Your task to perform on an android device: turn on priority inbox in the gmail app Image 0: 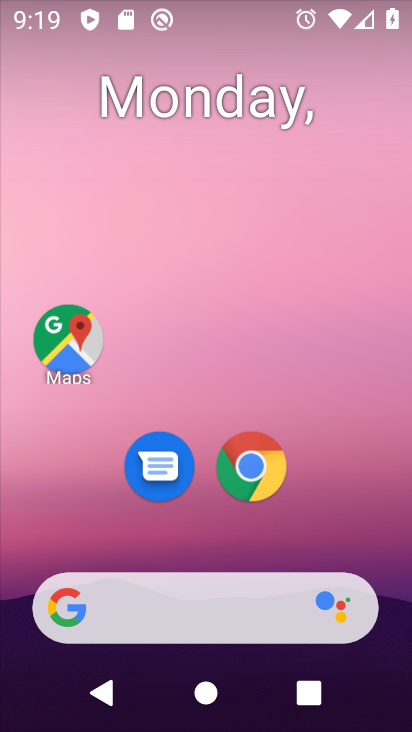
Step 0: drag from (275, 701) to (230, 196)
Your task to perform on an android device: turn on priority inbox in the gmail app Image 1: 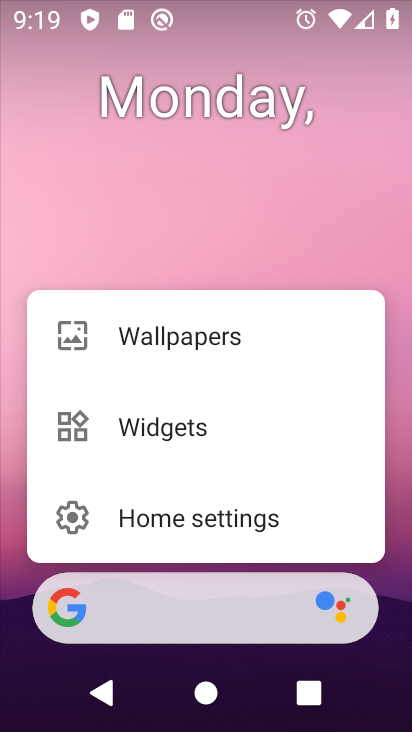
Step 1: click (273, 196)
Your task to perform on an android device: turn on priority inbox in the gmail app Image 2: 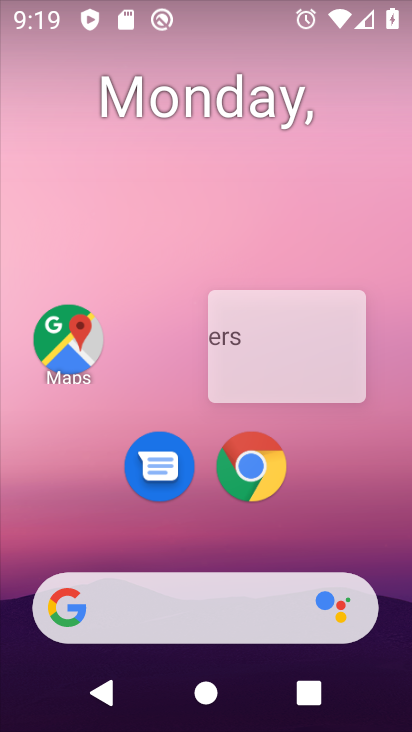
Step 2: drag from (273, 196) to (274, 234)
Your task to perform on an android device: turn on priority inbox in the gmail app Image 3: 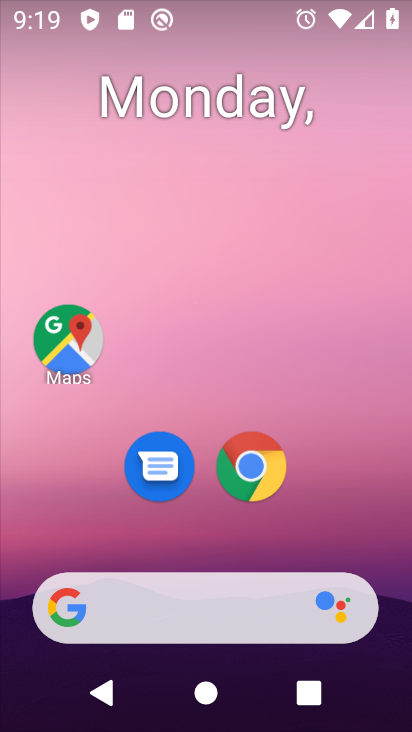
Step 3: drag from (345, 535) to (94, 124)
Your task to perform on an android device: turn on priority inbox in the gmail app Image 4: 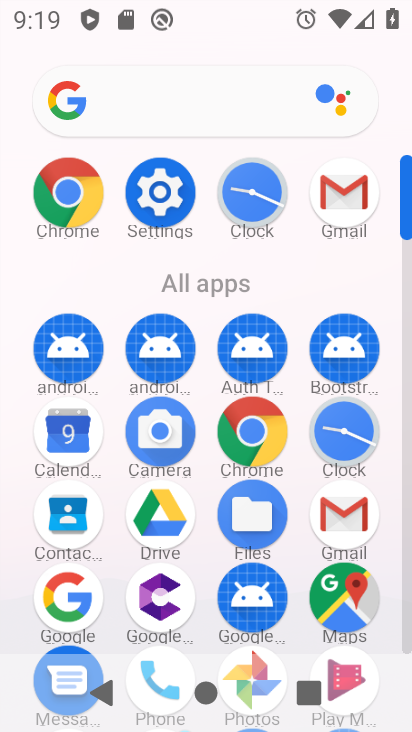
Step 4: click (328, 524)
Your task to perform on an android device: turn on priority inbox in the gmail app Image 5: 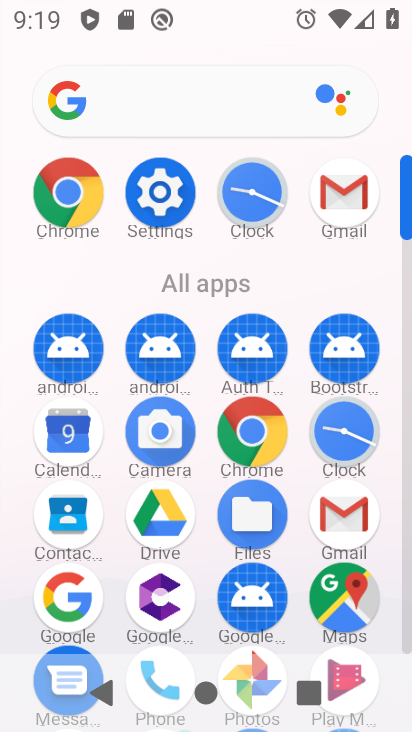
Step 5: click (331, 523)
Your task to perform on an android device: turn on priority inbox in the gmail app Image 6: 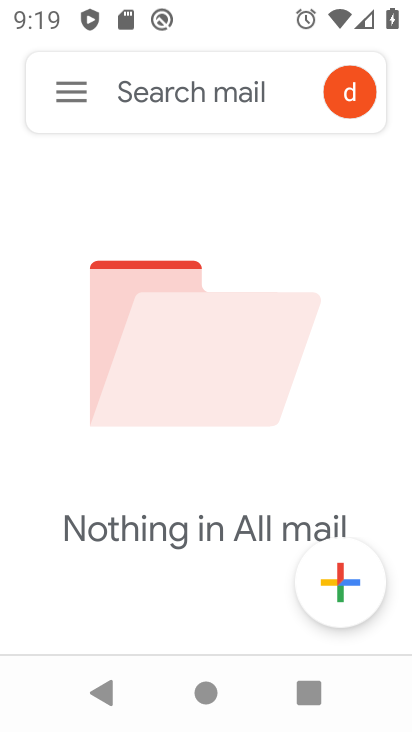
Step 6: click (81, 96)
Your task to perform on an android device: turn on priority inbox in the gmail app Image 7: 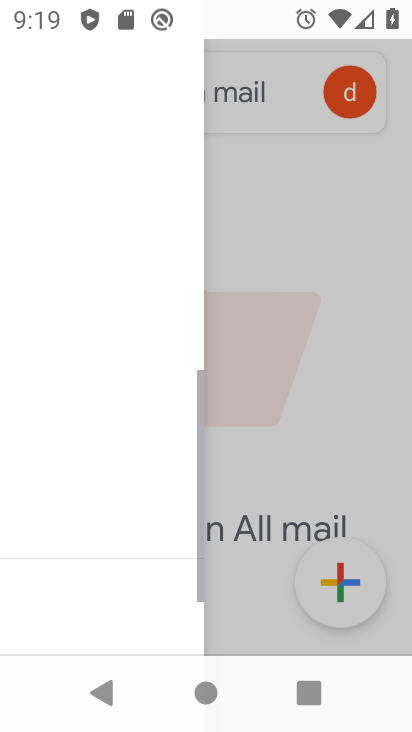
Step 7: click (81, 96)
Your task to perform on an android device: turn on priority inbox in the gmail app Image 8: 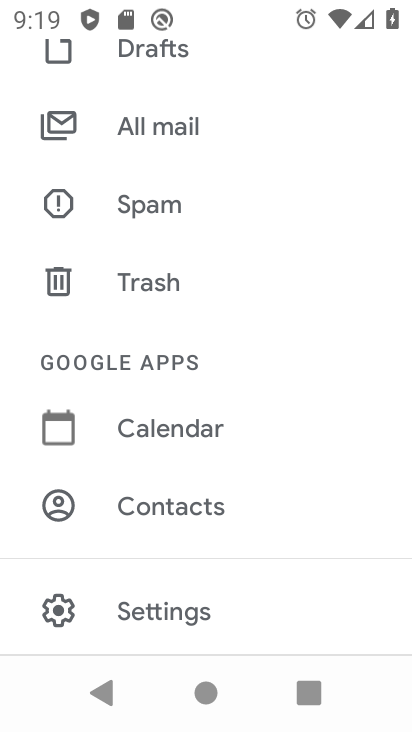
Step 8: click (153, 606)
Your task to perform on an android device: turn on priority inbox in the gmail app Image 9: 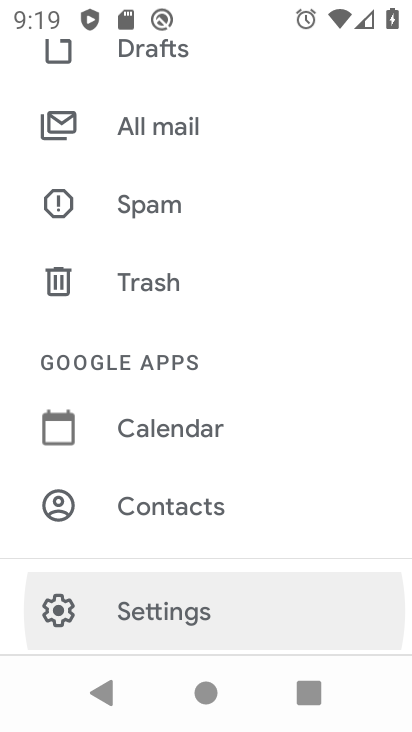
Step 9: click (153, 607)
Your task to perform on an android device: turn on priority inbox in the gmail app Image 10: 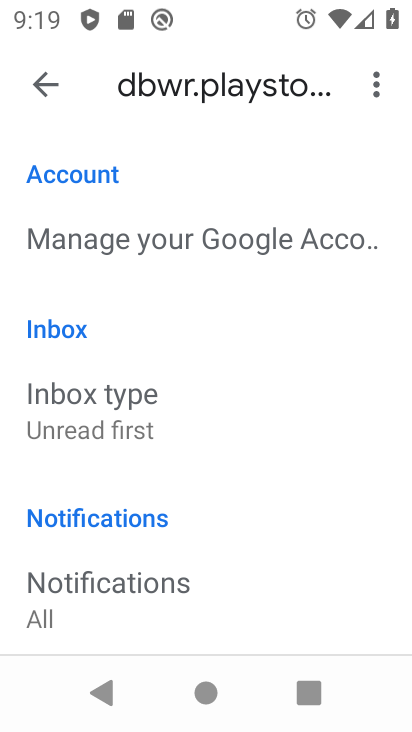
Step 10: click (80, 419)
Your task to perform on an android device: turn on priority inbox in the gmail app Image 11: 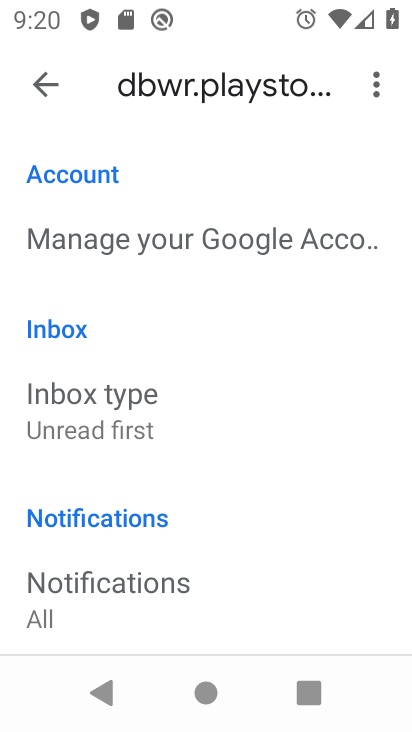
Step 11: click (80, 419)
Your task to perform on an android device: turn on priority inbox in the gmail app Image 12: 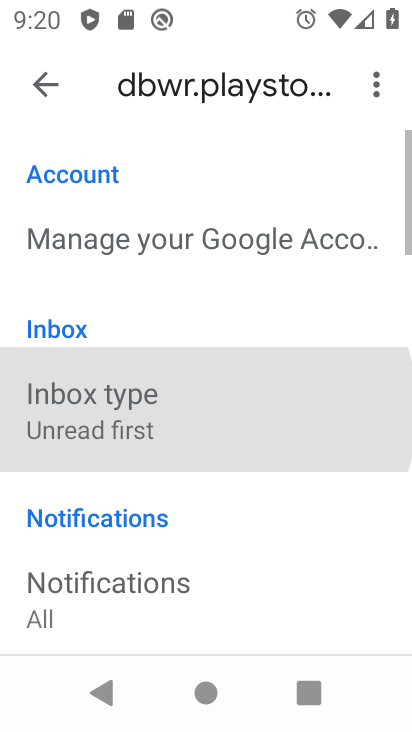
Step 12: click (80, 419)
Your task to perform on an android device: turn on priority inbox in the gmail app Image 13: 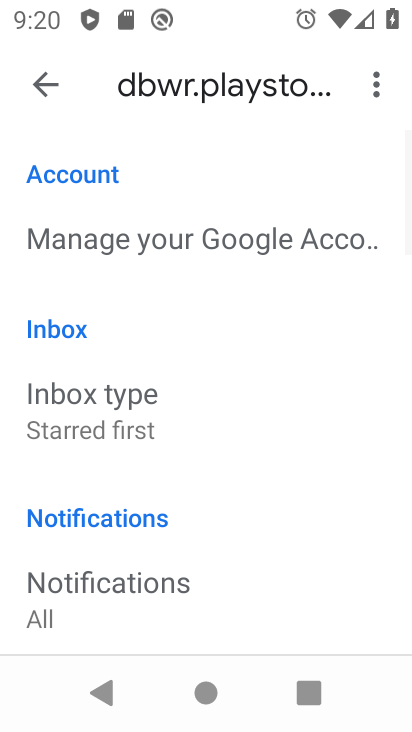
Step 13: click (88, 420)
Your task to perform on an android device: turn on priority inbox in the gmail app Image 14: 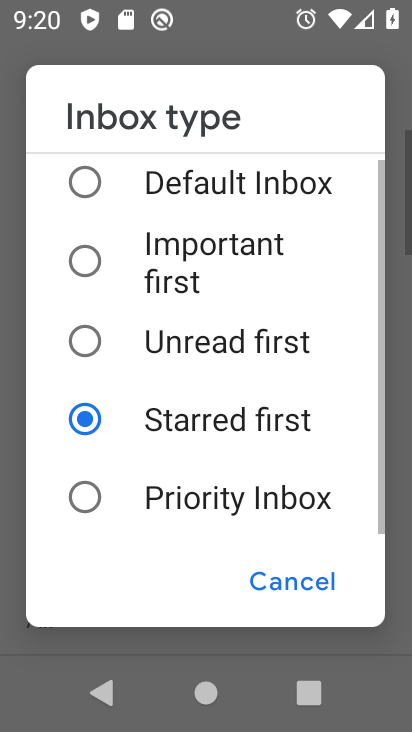
Step 14: click (85, 501)
Your task to perform on an android device: turn on priority inbox in the gmail app Image 15: 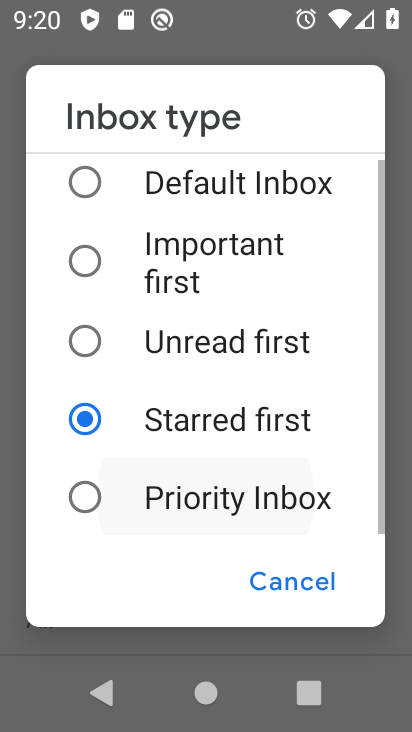
Step 15: click (85, 501)
Your task to perform on an android device: turn on priority inbox in the gmail app Image 16: 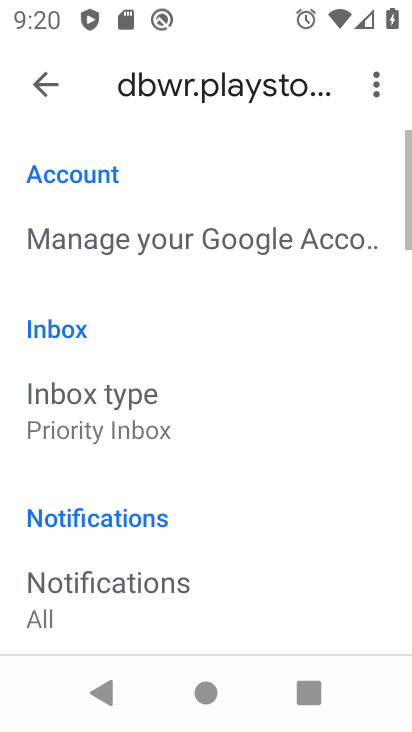
Step 16: click (85, 501)
Your task to perform on an android device: turn on priority inbox in the gmail app Image 17: 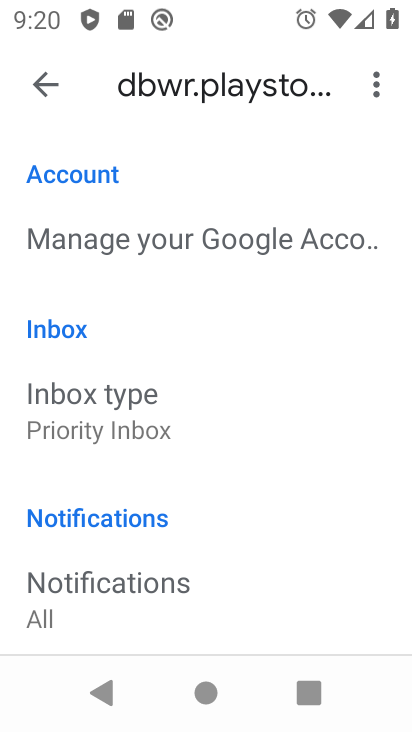
Step 17: task complete